Your task to perform on an android device: move a message to another label in the gmail app Image 0: 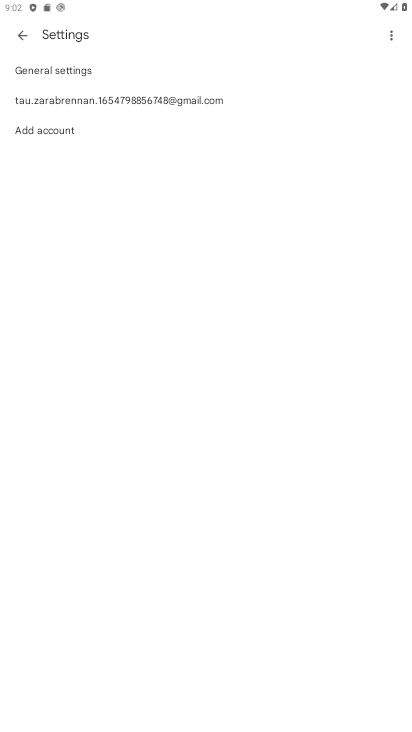
Step 0: click (24, 32)
Your task to perform on an android device: move a message to another label in the gmail app Image 1: 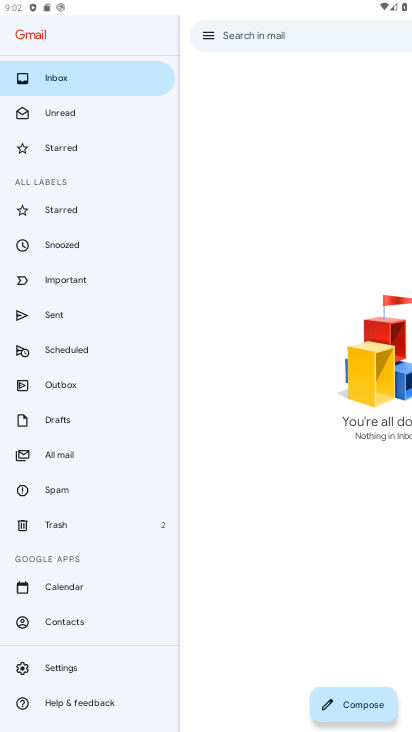
Step 1: click (67, 456)
Your task to perform on an android device: move a message to another label in the gmail app Image 2: 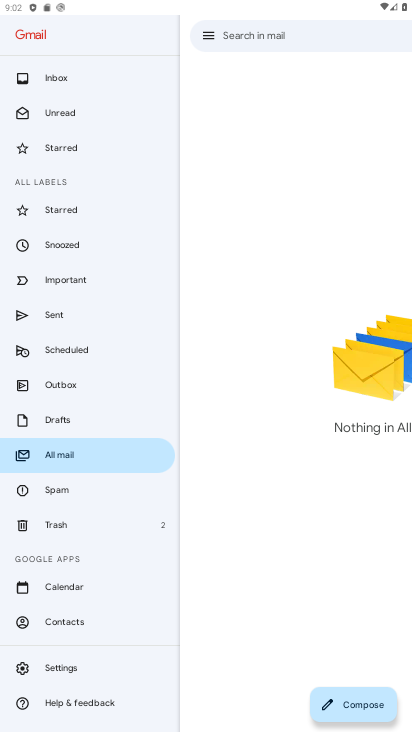
Step 2: task complete